Your task to perform on an android device: empty trash in the gmail app Image 0: 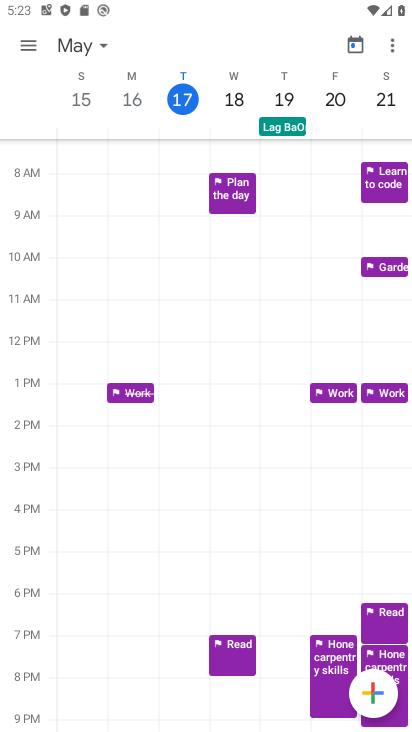
Step 0: press home button
Your task to perform on an android device: empty trash in the gmail app Image 1: 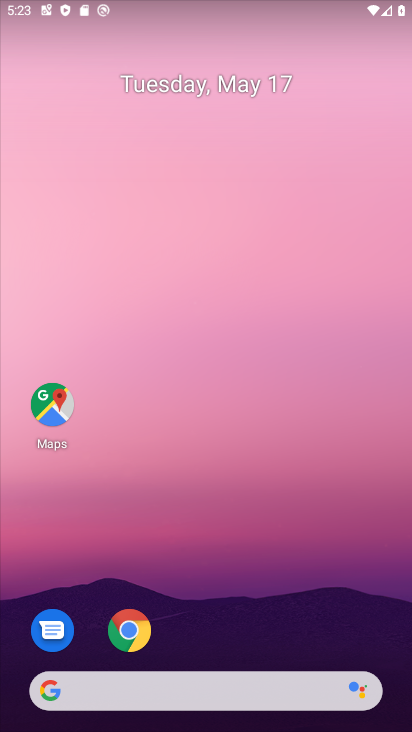
Step 1: drag from (277, 636) to (223, 120)
Your task to perform on an android device: empty trash in the gmail app Image 2: 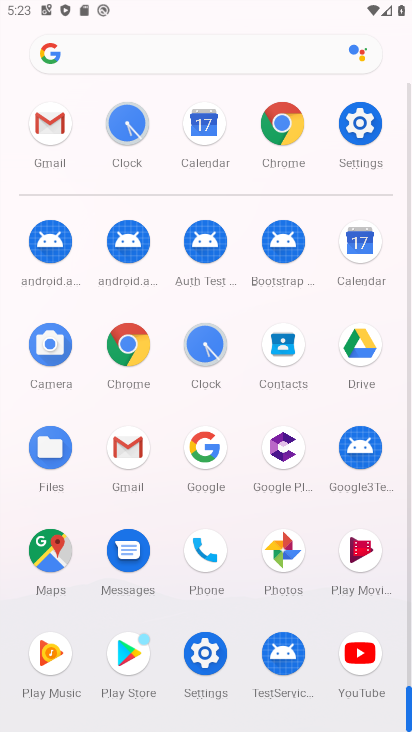
Step 2: click (52, 123)
Your task to perform on an android device: empty trash in the gmail app Image 3: 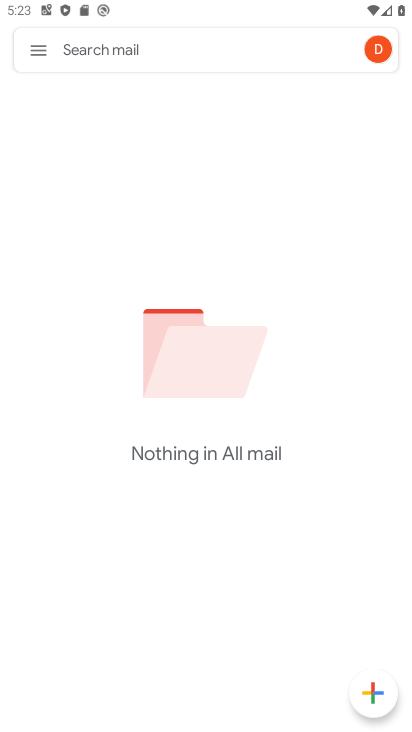
Step 3: click (59, 60)
Your task to perform on an android device: empty trash in the gmail app Image 4: 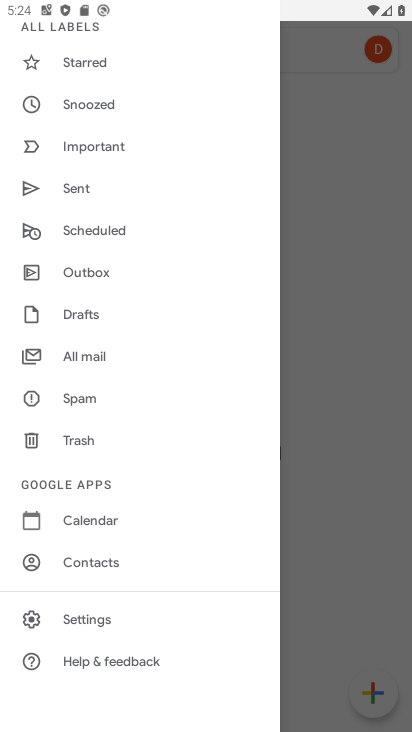
Step 4: click (78, 433)
Your task to perform on an android device: empty trash in the gmail app Image 5: 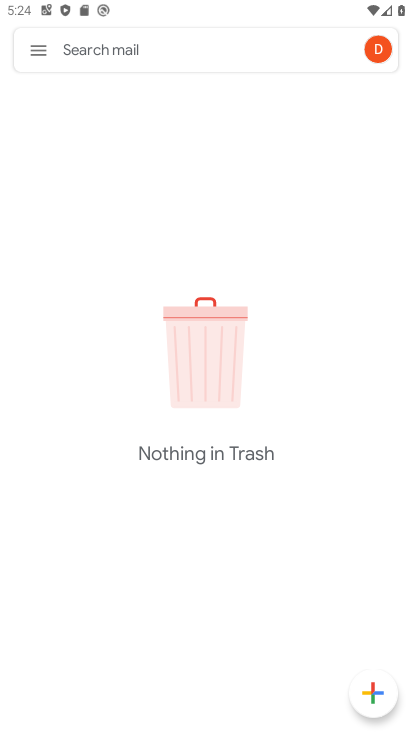
Step 5: task complete